Your task to perform on an android device: Open the map Image 0: 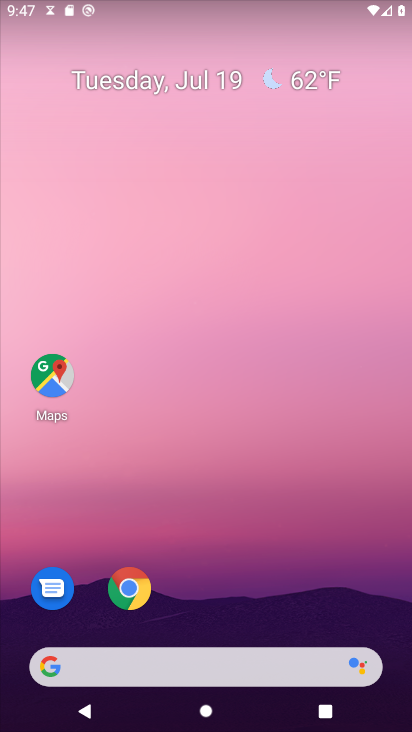
Step 0: click (49, 378)
Your task to perform on an android device: Open the map Image 1: 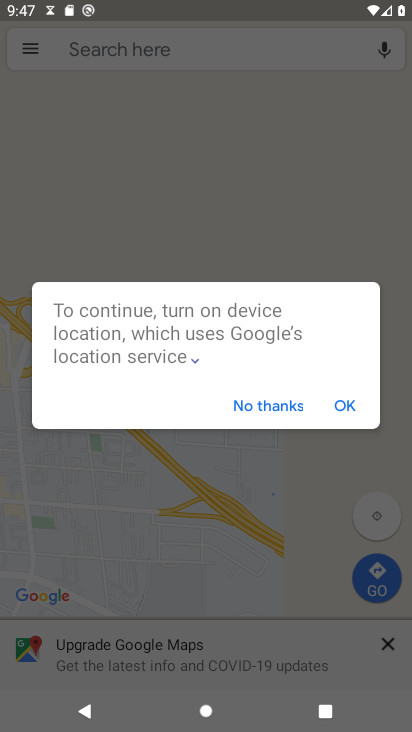
Step 1: task complete